Your task to perform on an android device: toggle improve location accuracy Image 0: 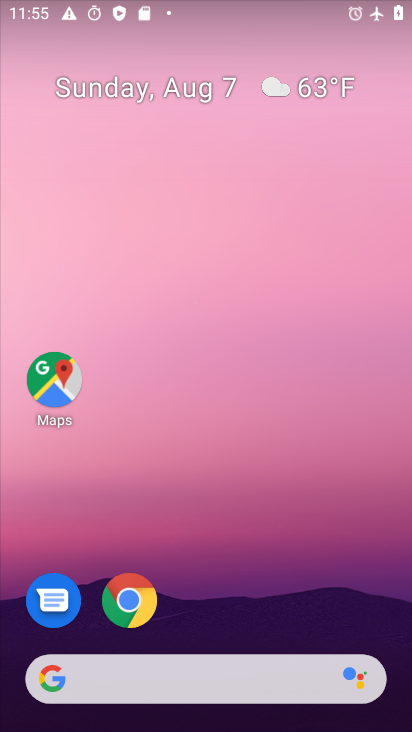
Step 0: drag from (230, 526) to (240, 100)
Your task to perform on an android device: toggle improve location accuracy Image 1: 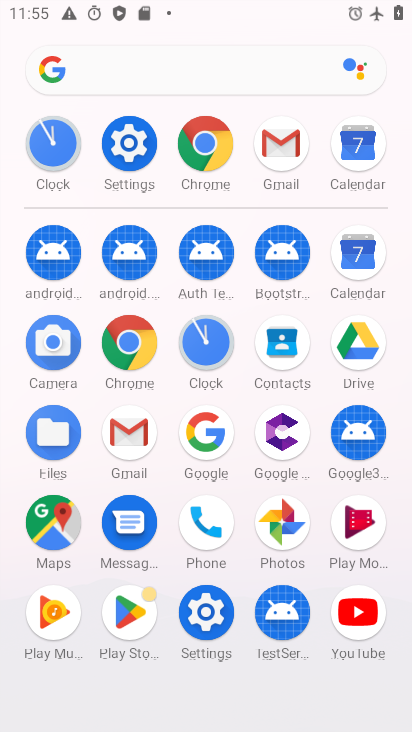
Step 1: click (193, 629)
Your task to perform on an android device: toggle improve location accuracy Image 2: 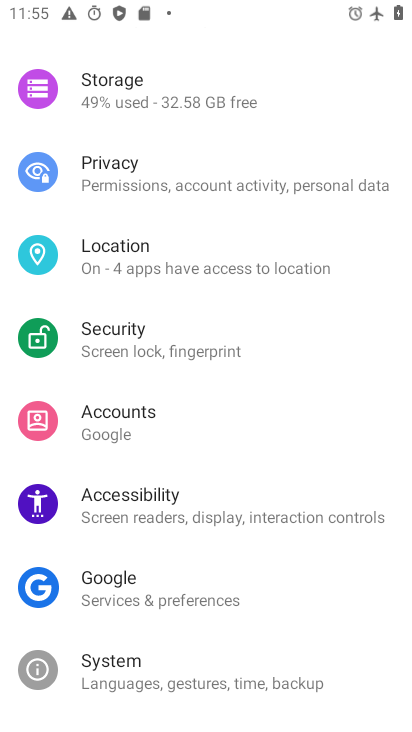
Step 2: drag from (145, 512) to (147, 352)
Your task to perform on an android device: toggle improve location accuracy Image 3: 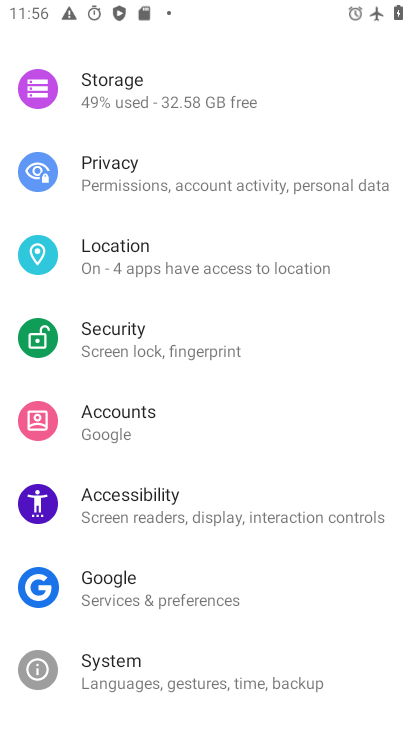
Step 3: click (185, 271)
Your task to perform on an android device: toggle improve location accuracy Image 4: 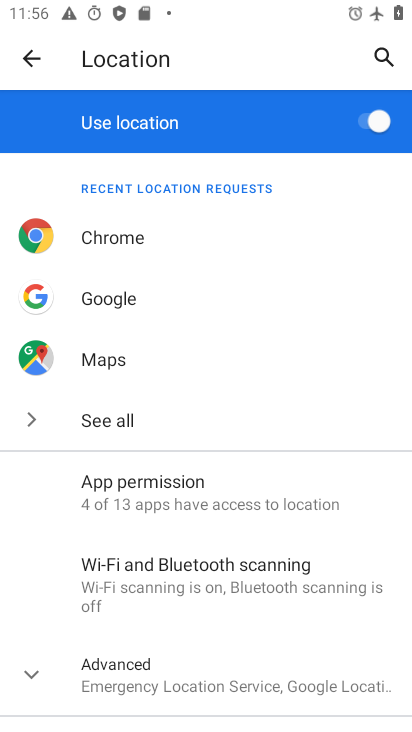
Step 4: drag from (192, 571) to (212, 370)
Your task to perform on an android device: toggle improve location accuracy Image 5: 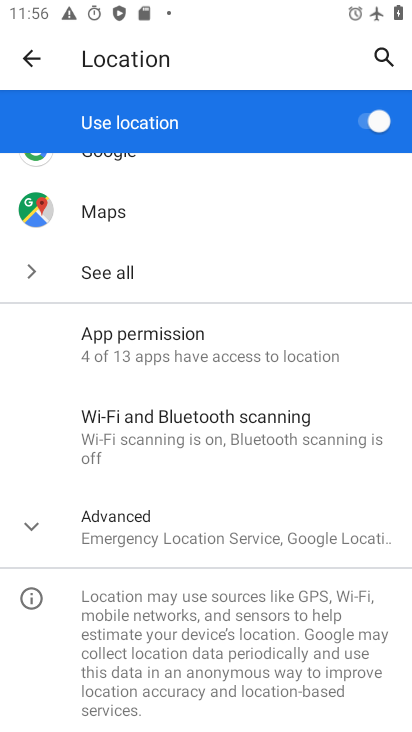
Step 5: click (154, 532)
Your task to perform on an android device: toggle improve location accuracy Image 6: 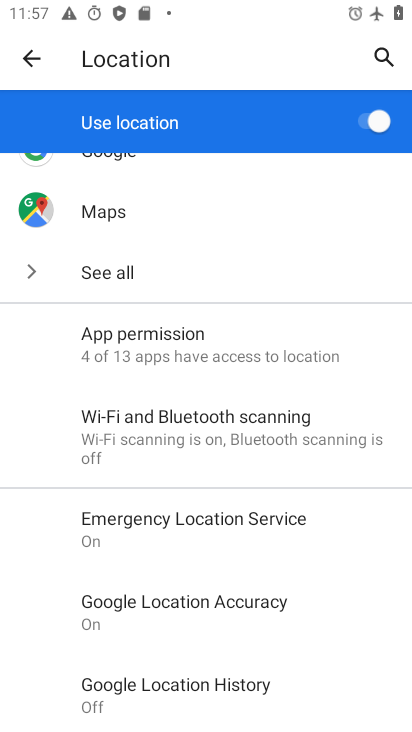
Step 6: click (206, 600)
Your task to perform on an android device: toggle improve location accuracy Image 7: 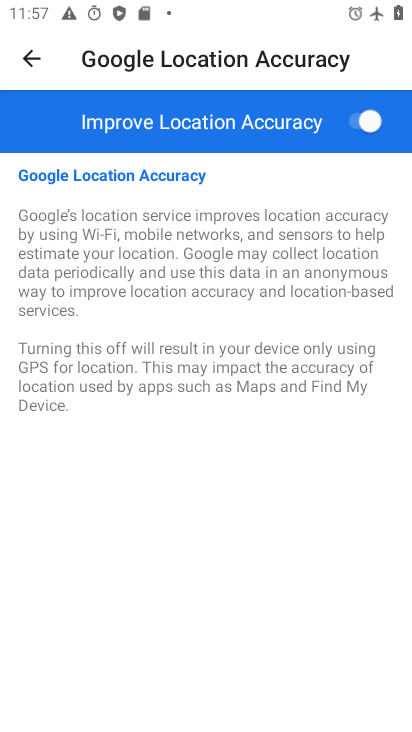
Step 7: click (346, 119)
Your task to perform on an android device: toggle improve location accuracy Image 8: 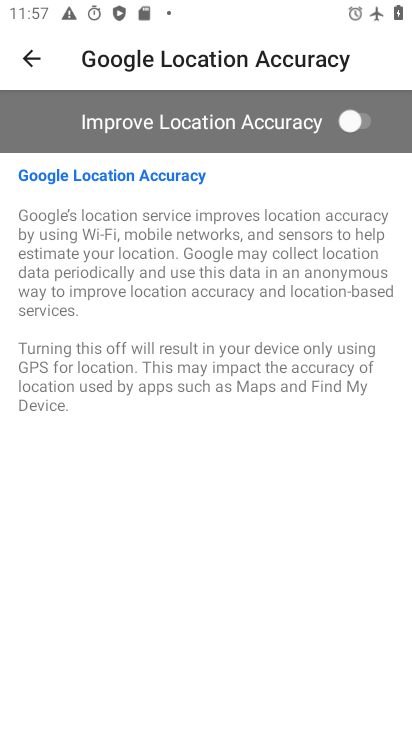
Step 8: task complete